Your task to perform on an android device: Open Yahoo.com Image 0: 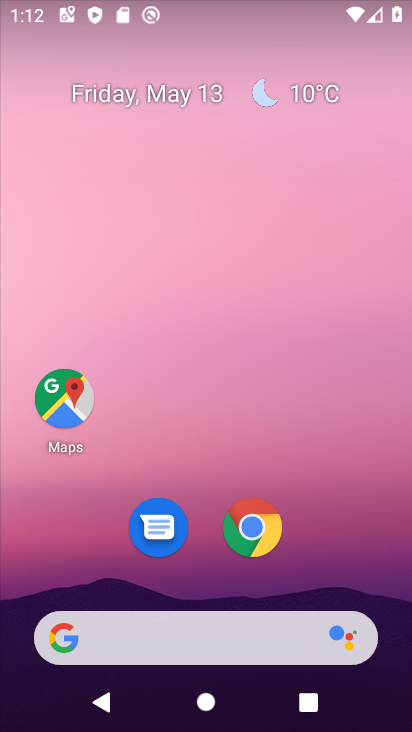
Step 0: drag from (182, 592) to (252, 227)
Your task to perform on an android device: Open Yahoo.com Image 1: 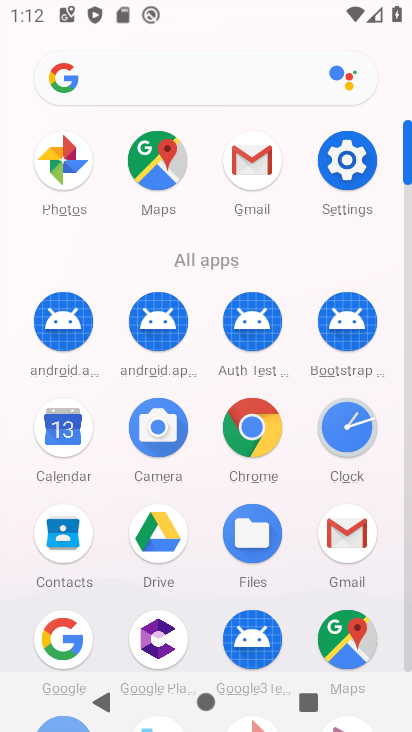
Step 1: click (233, 439)
Your task to perform on an android device: Open Yahoo.com Image 2: 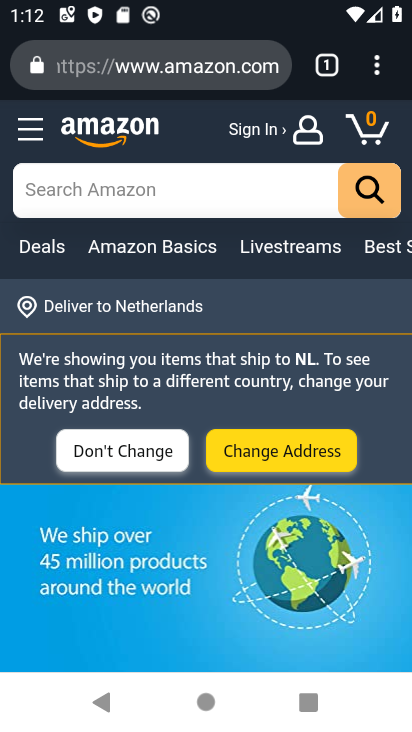
Step 2: drag from (385, 71) to (358, 145)
Your task to perform on an android device: Open Yahoo.com Image 3: 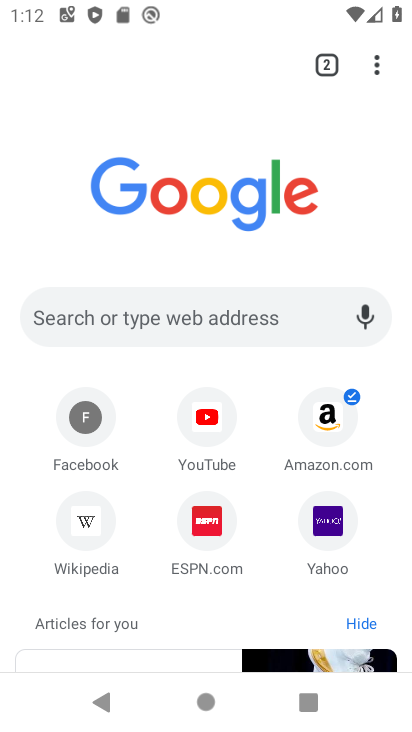
Step 3: click (312, 541)
Your task to perform on an android device: Open Yahoo.com Image 4: 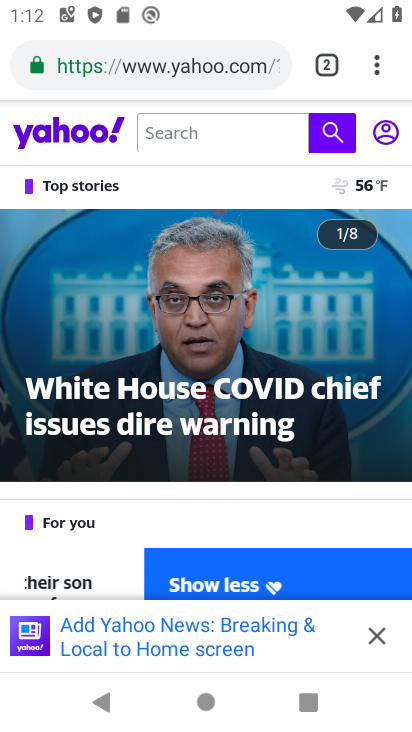
Step 4: task complete